Your task to perform on an android device: What's the weather going to be tomorrow? Image 0: 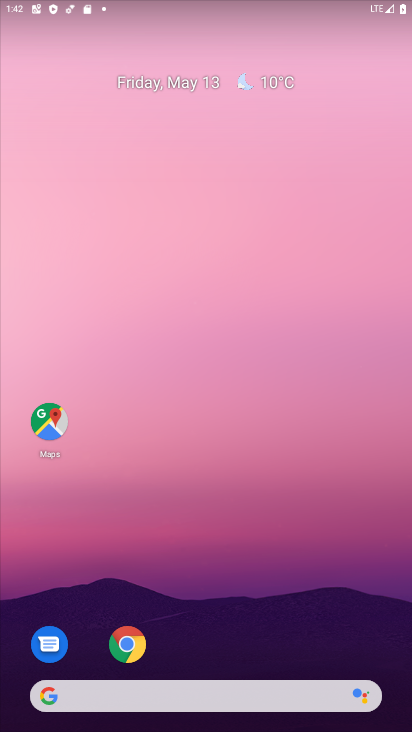
Step 0: drag from (304, 630) to (334, 133)
Your task to perform on an android device: What's the weather going to be tomorrow? Image 1: 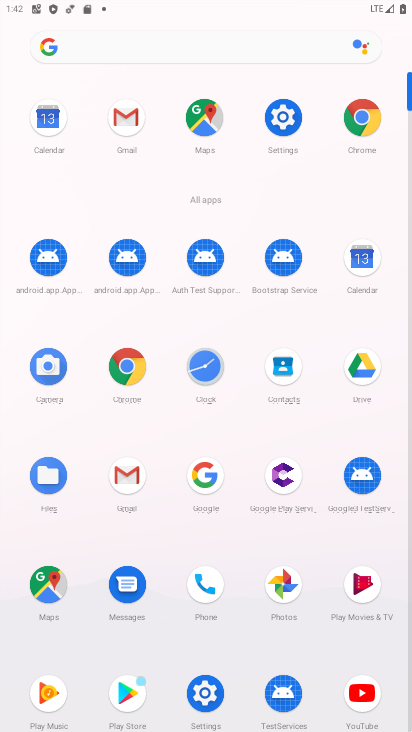
Step 1: click (129, 361)
Your task to perform on an android device: What's the weather going to be tomorrow? Image 2: 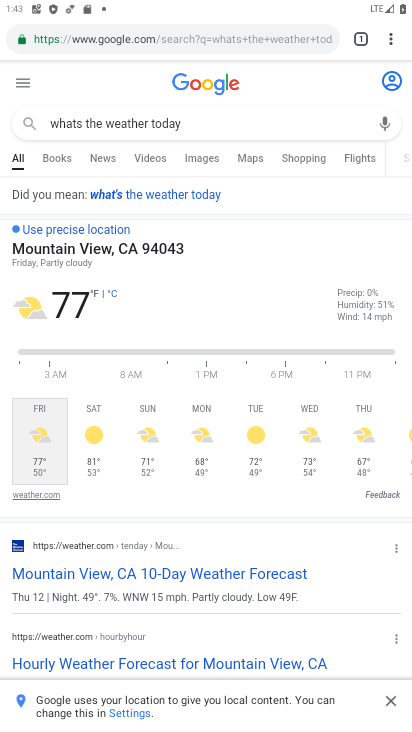
Step 2: click (215, 41)
Your task to perform on an android device: What's the weather going to be tomorrow? Image 3: 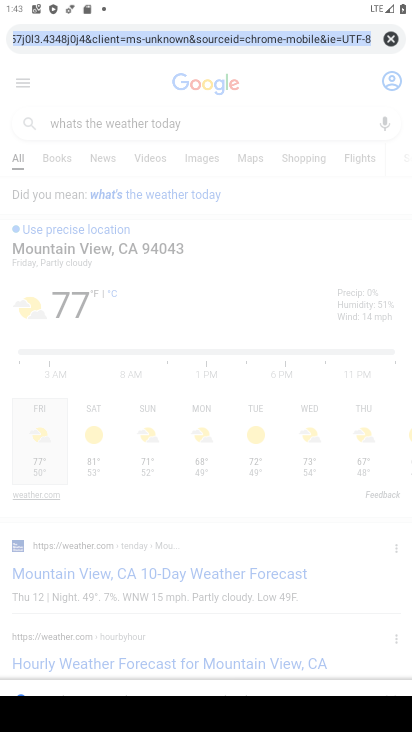
Step 3: click (393, 39)
Your task to perform on an android device: What's the weather going to be tomorrow? Image 4: 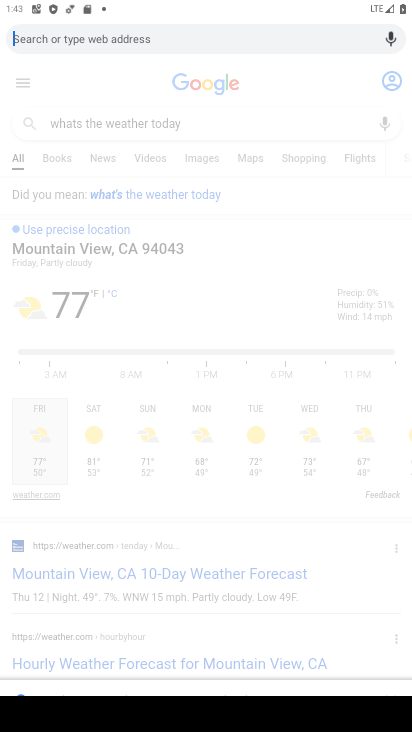
Step 4: type "weather going to be tomorrow"
Your task to perform on an android device: What's the weather going to be tomorrow? Image 5: 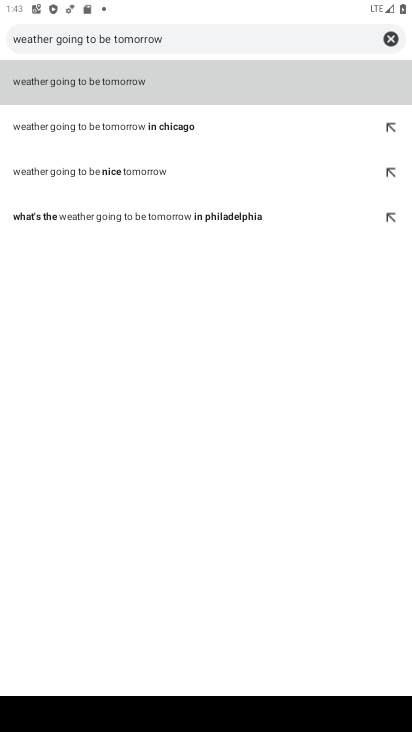
Step 5: click (132, 86)
Your task to perform on an android device: What's the weather going to be tomorrow? Image 6: 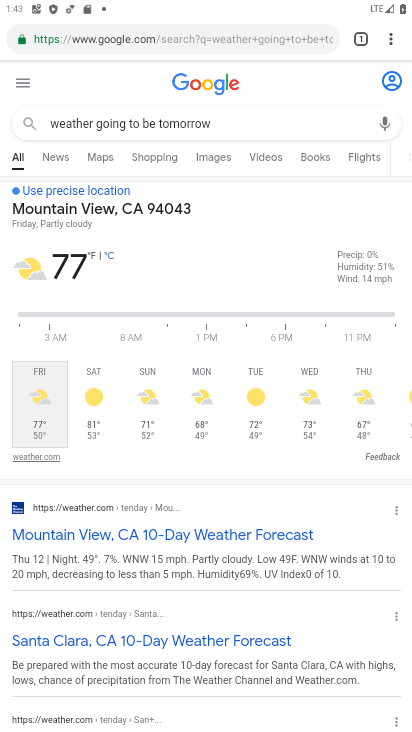
Step 6: task complete